Your task to perform on an android device: Turn on the flashlight Image 0: 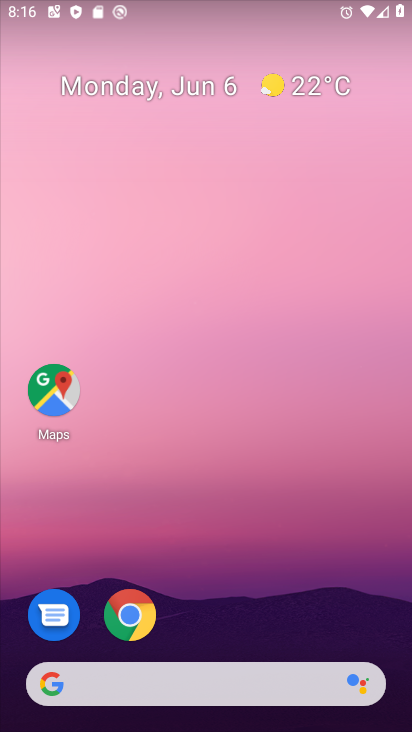
Step 0: drag from (392, 708) to (243, 173)
Your task to perform on an android device: Turn on the flashlight Image 1: 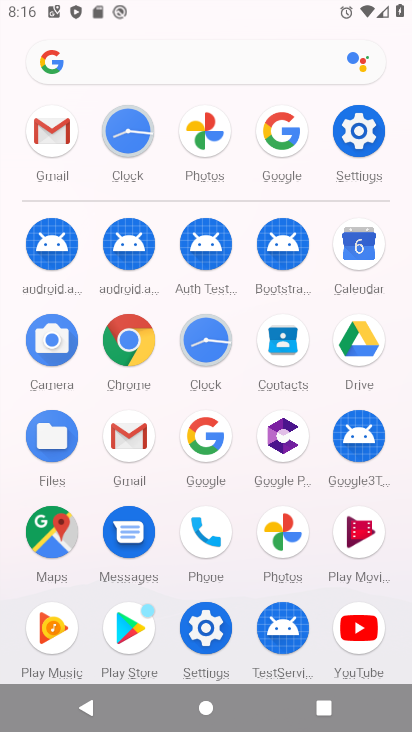
Step 1: click (358, 125)
Your task to perform on an android device: Turn on the flashlight Image 2: 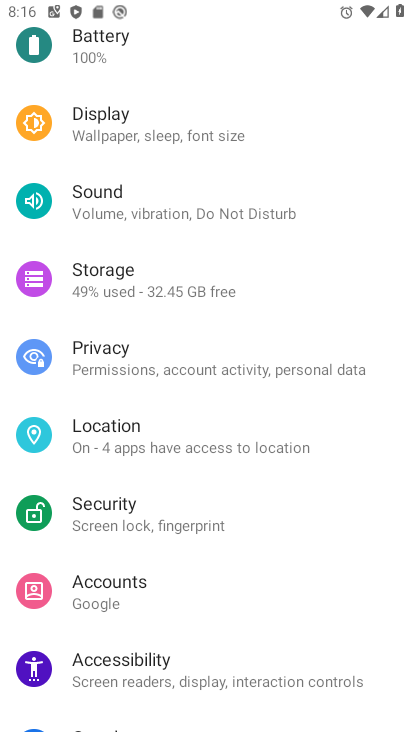
Step 2: click (118, 125)
Your task to perform on an android device: Turn on the flashlight Image 3: 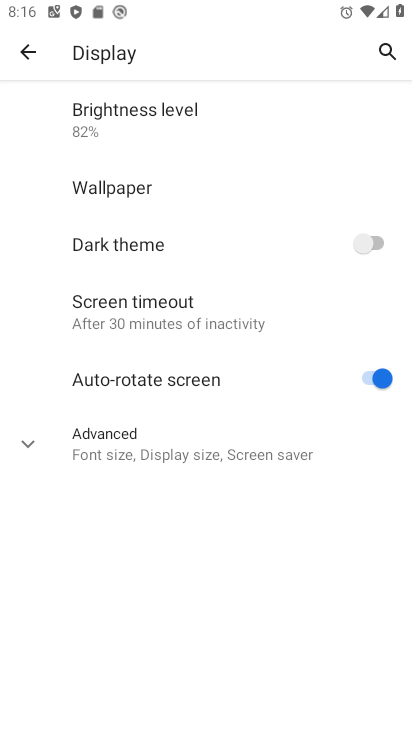
Step 3: task complete